Your task to perform on an android device: Clear the shopping cart on amazon.com. Add "beats solo 3" to the cart on amazon.com Image 0: 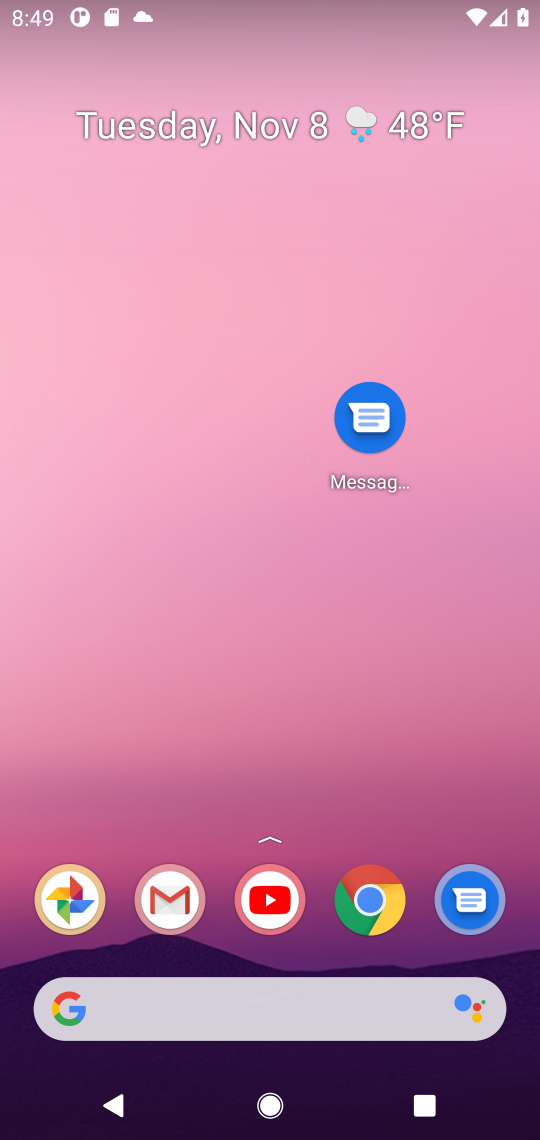
Step 0: click (210, 291)
Your task to perform on an android device: Clear the shopping cart on amazon.com. Add "beats solo 3" to the cart on amazon.com Image 1: 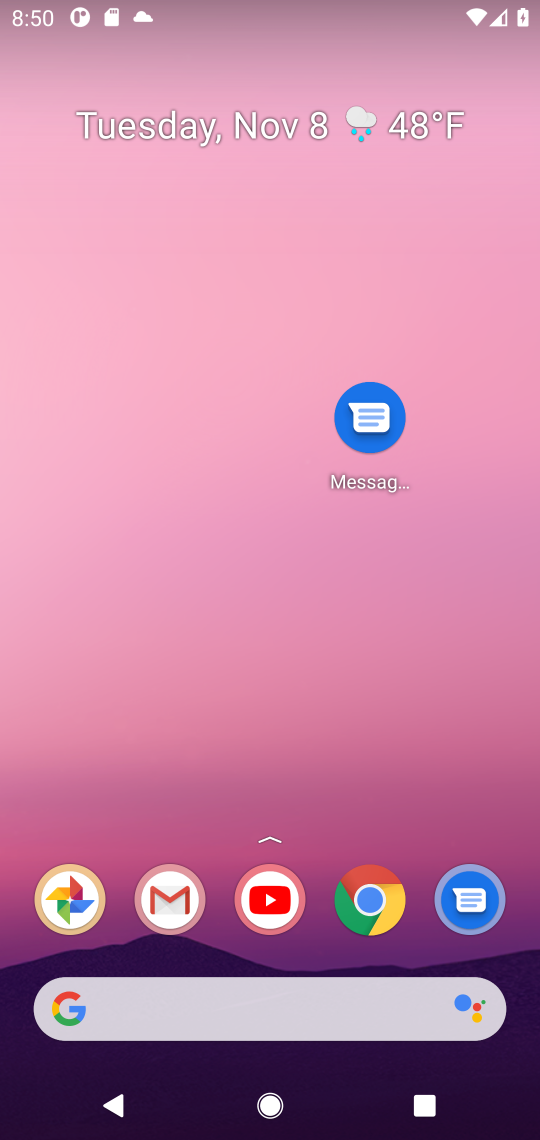
Step 1: drag from (167, 998) to (285, 192)
Your task to perform on an android device: Clear the shopping cart on amazon.com. Add "beats solo 3" to the cart on amazon.com Image 2: 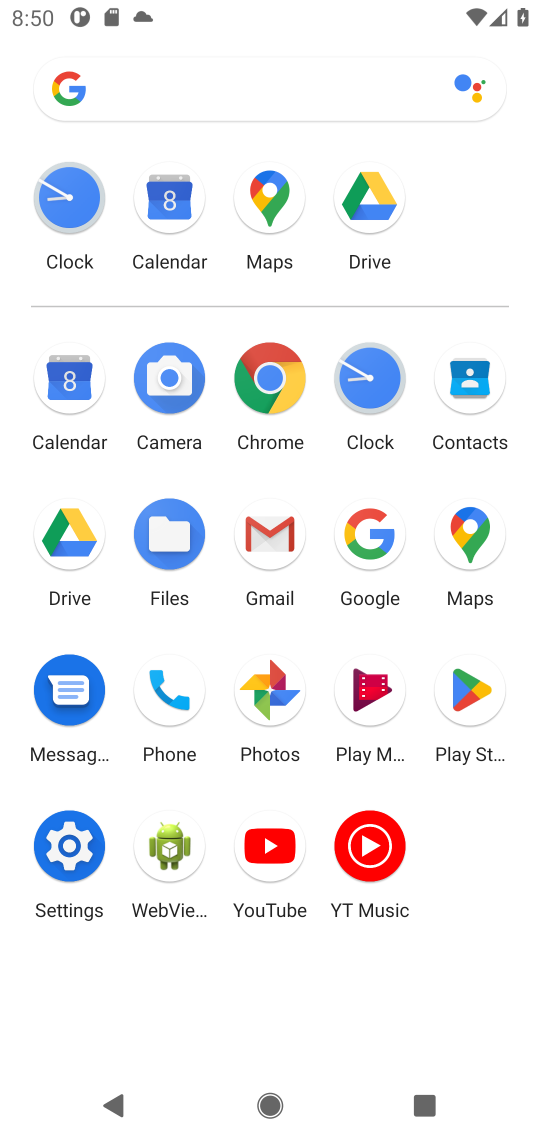
Step 2: click (365, 533)
Your task to perform on an android device: Clear the shopping cart on amazon.com. Add "beats solo 3" to the cart on amazon.com Image 3: 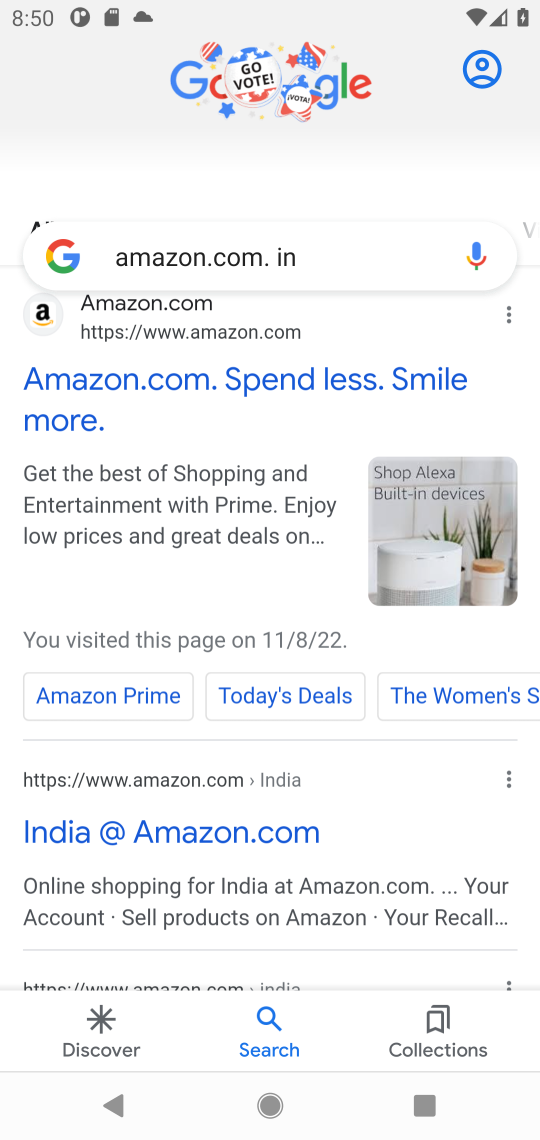
Step 3: click (280, 255)
Your task to perform on an android device: Clear the shopping cart on amazon.com. Add "beats solo 3" to the cart on amazon.com Image 4: 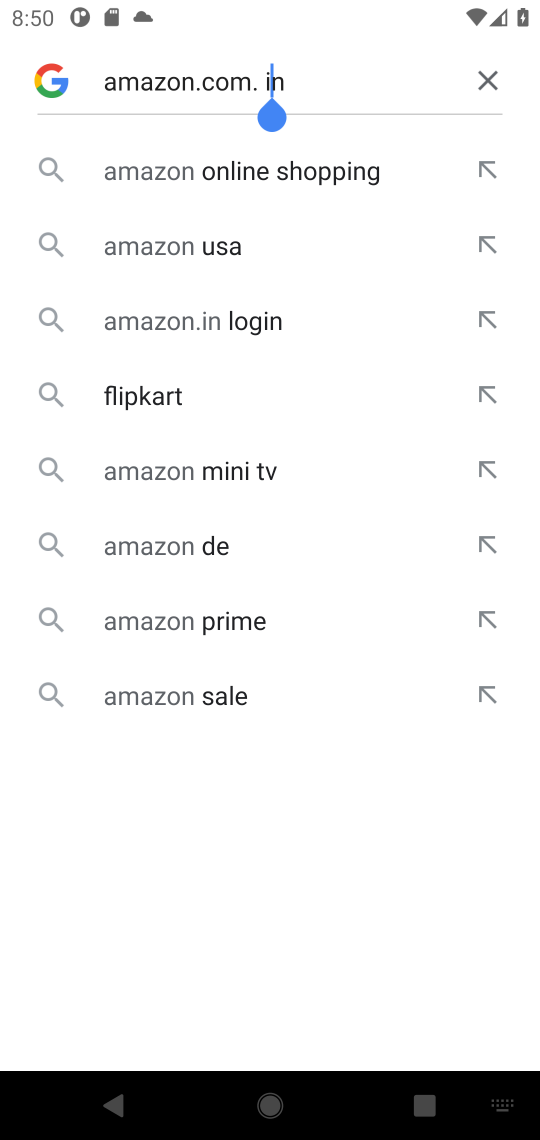
Step 4: click (482, 86)
Your task to perform on an android device: Clear the shopping cart on amazon.com. Add "beats solo 3" to the cart on amazon.com Image 5: 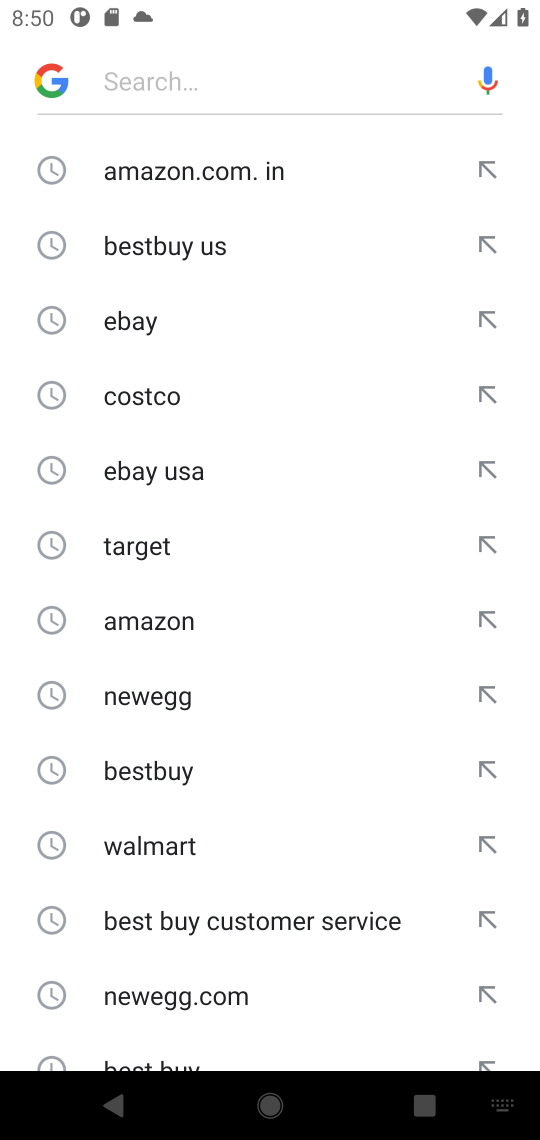
Step 5: click (222, 160)
Your task to perform on an android device: Clear the shopping cart on amazon.com. Add "beats solo 3" to the cart on amazon.com Image 6: 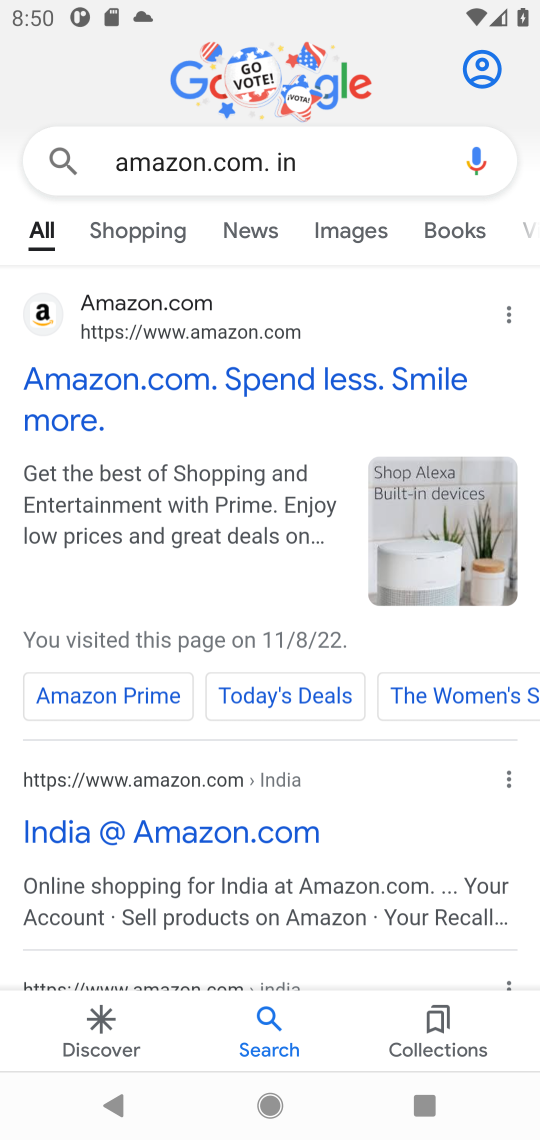
Step 6: click (38, 299)
Your task to perform on an android device: Clear the shopping cart on amazon.com. Add "beats solo 3" to the cart on amazon.com Image 7: 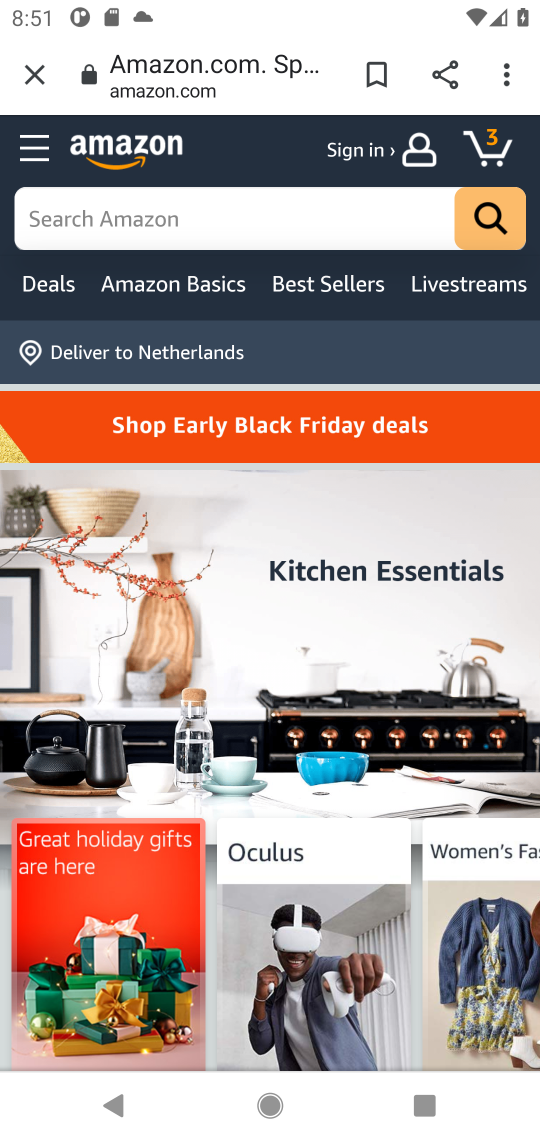
Step 7: click (329, 209)
Your task to perform on an android device: Clear the shopping cart on amazon.com. Add "beats solo 3" to the cart on amazon.com Image 8: 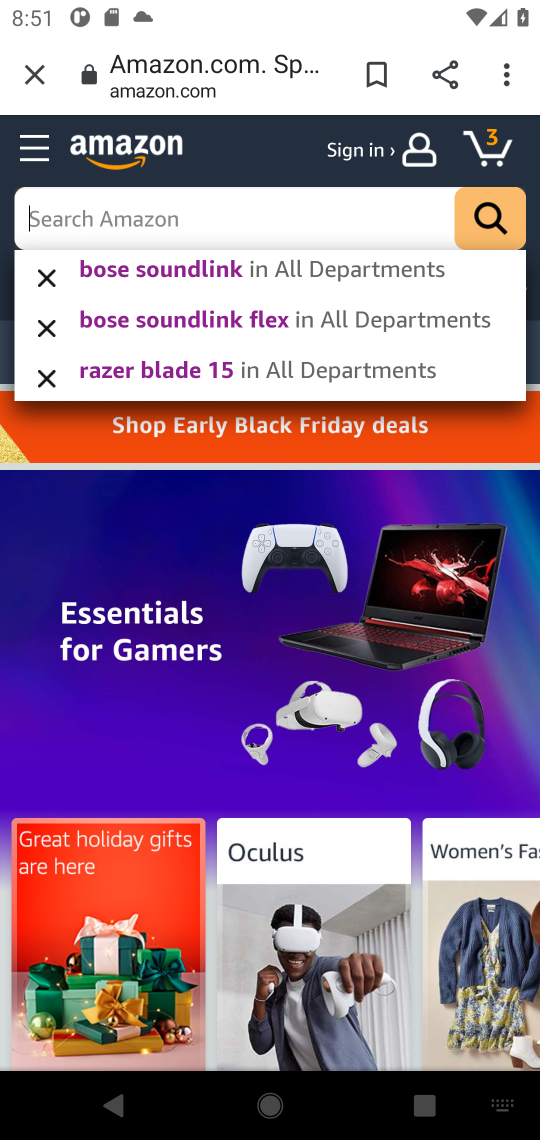
Step 8: type "beats solo 3 "
Your task to perform on an android device: Clear the shopping cart on amazon.com. Add "beats solo 3" to the cart on amazon.com Image 9: 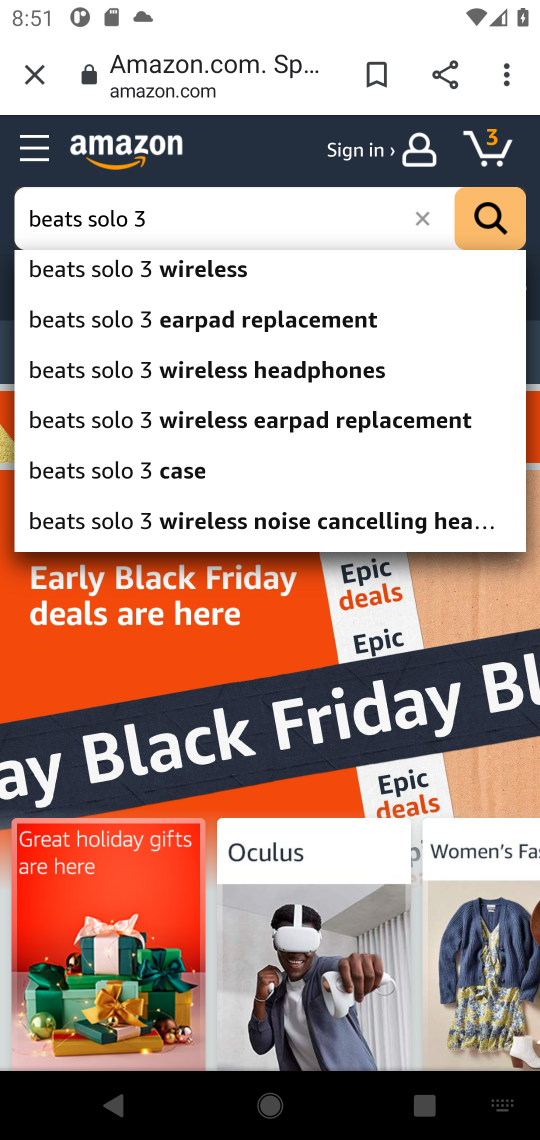
Step 9: click (180, 277)
Your task to perform on an android device: Clear the shopping cart on amazon.com. Add "beats solo 3" to the cart on amazon.com Image 10: 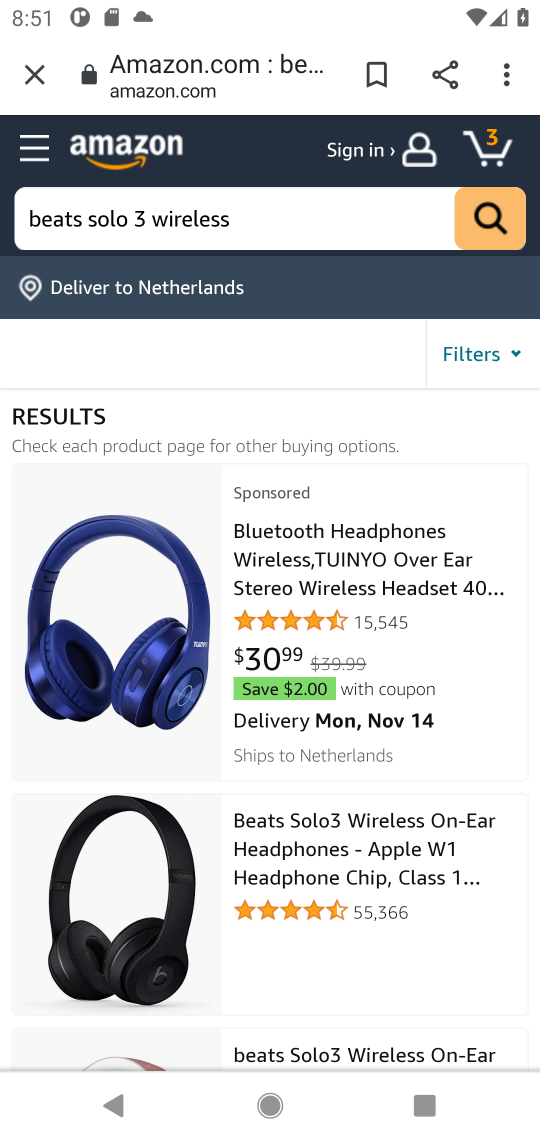
Step 10: click (380, 565)
Your task to perform on an android device: Clear the shopping cart on amazon.com. Add "beats solo 3" to the cart on amazon.com Image 11: 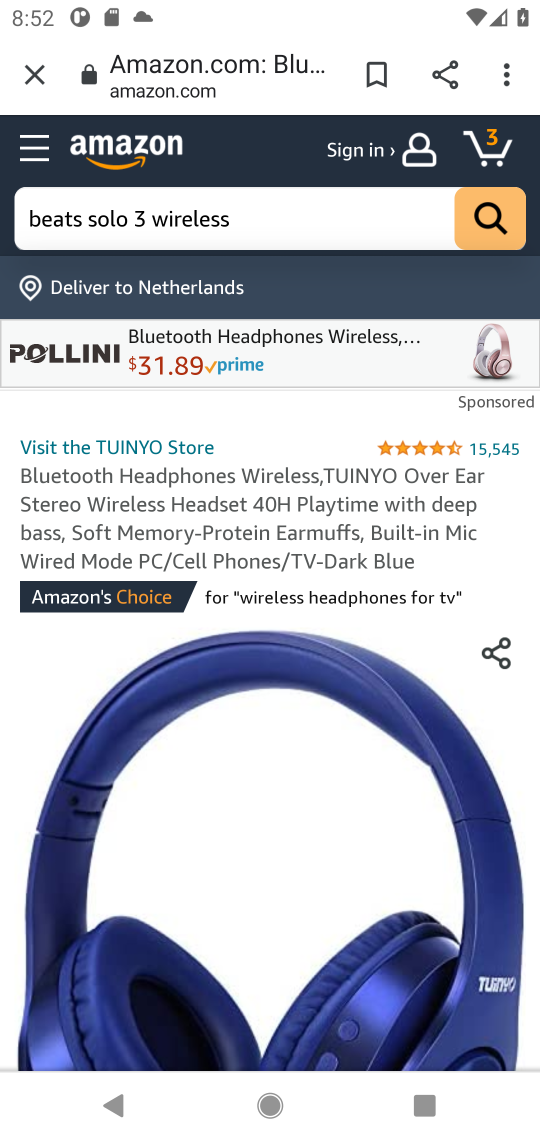
Step 11: drag from (315, 885) to (306, 411)
Your task to perform on an android device: Clear the shopping cart on amazon.com. Add "beats solo 3" to the cart on amazon.com Image 12: 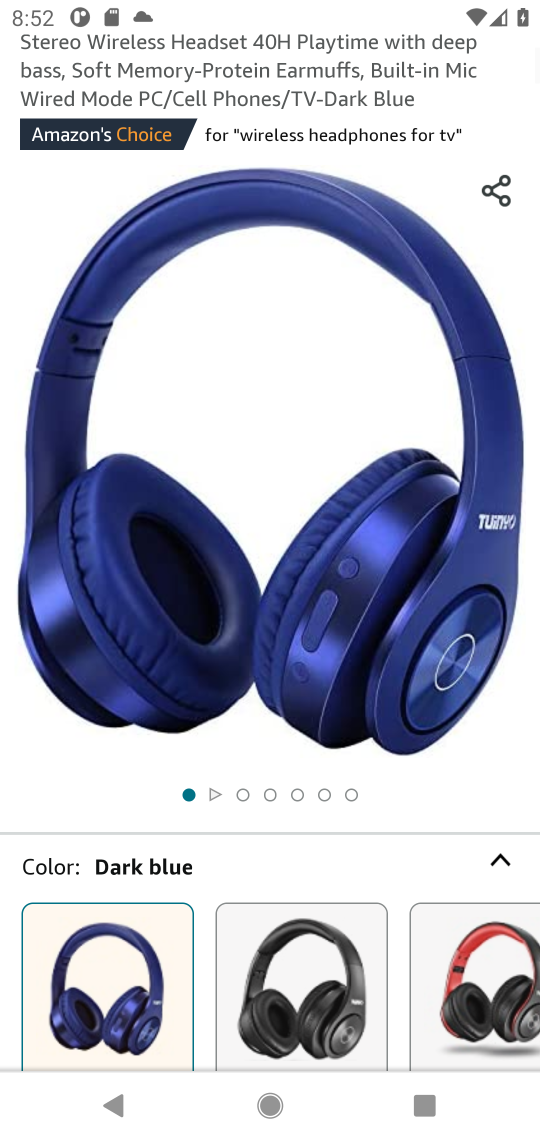
Step 12: drag from (184, 913) to (300, 184)
Your task to perform on an android device: Clear the shopping cart on amazon.com. Add "beats solo 3" to the cart on amazon.com Image 13: 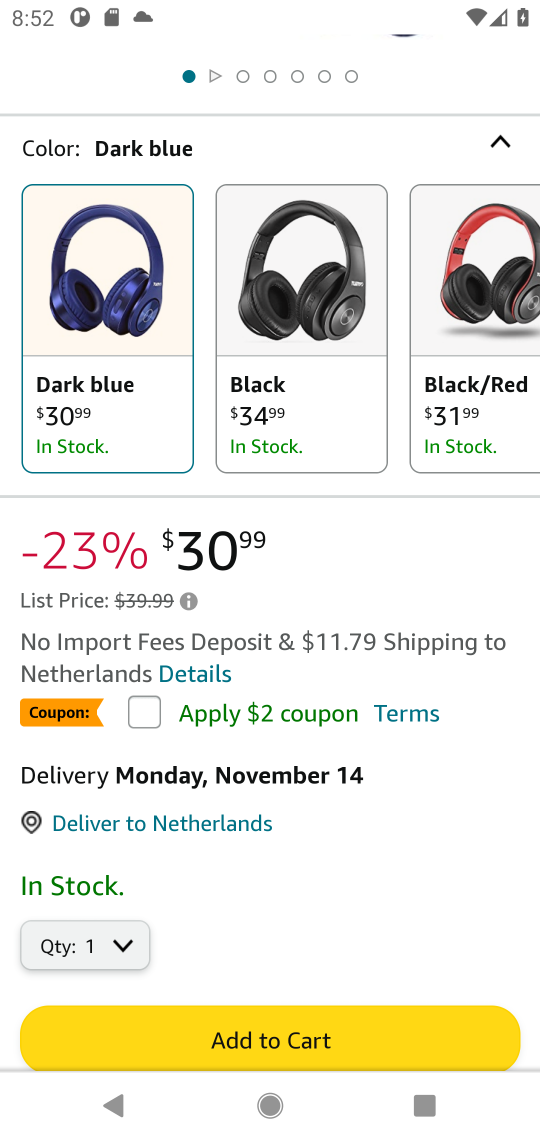
Step 13: click (296, 1037)
Your task to perform on an android device: Clear the shopping cart on amazon.com. Add "beats solo 3" to the cart on amazon.com Image 14: 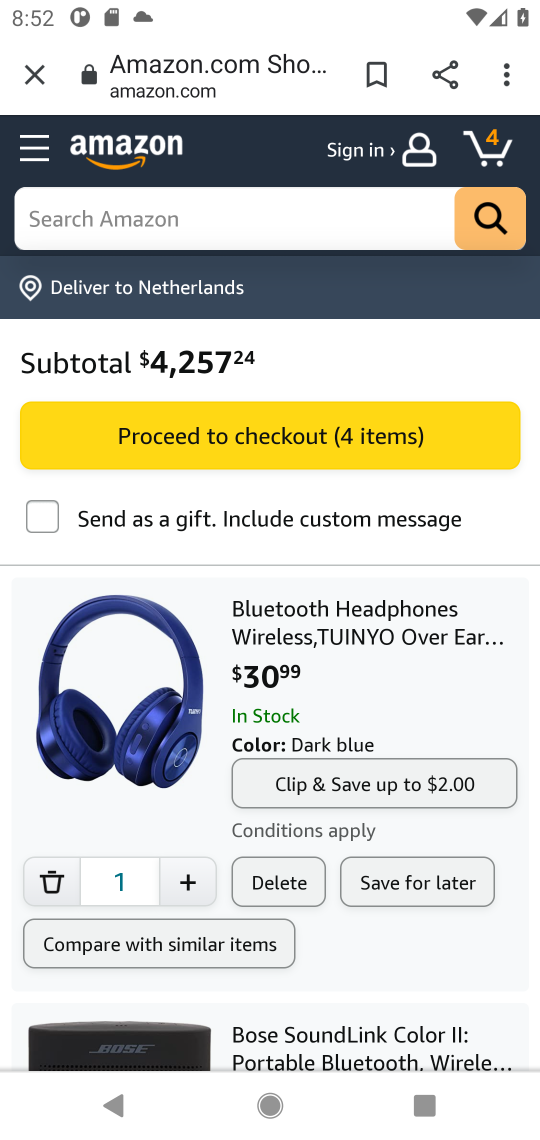
Step 14: task complete